Your task to perform on an android device: See recent photos Image 0: 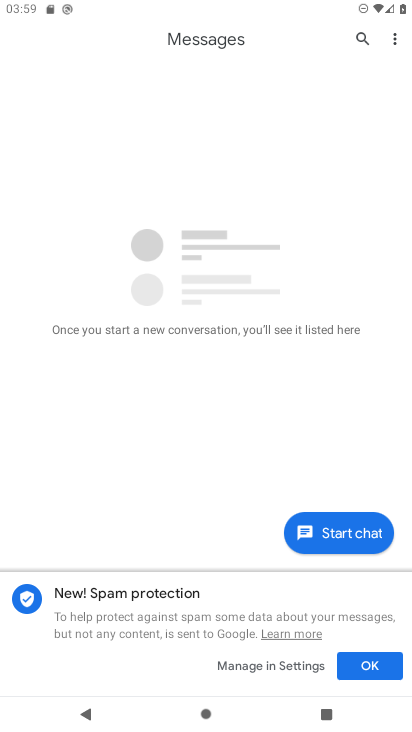
Step 0: press home button
Your task to perform on an android device: See recent photos Image 1: 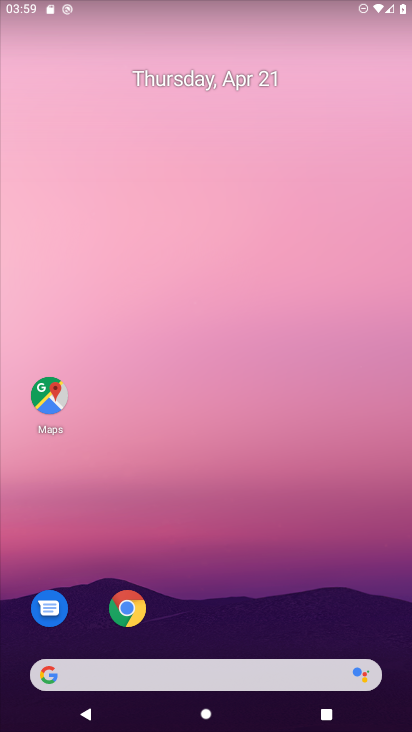
Step 1: drag from (266, 516) to (258, 176)
Your task to perform on an android device: See recent photos Image 2: 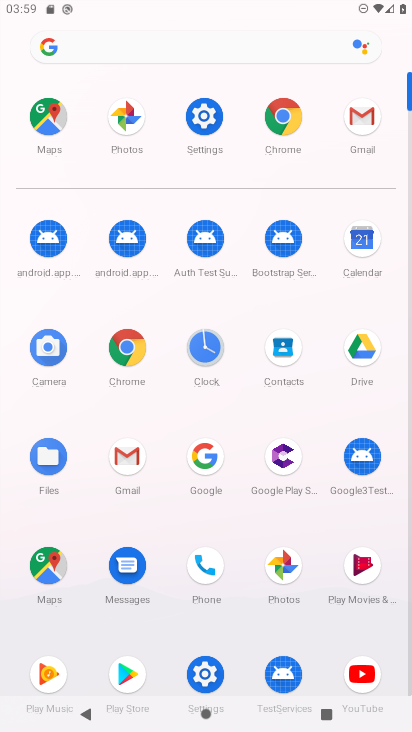
Step 2: click (278, 563)
Your task to perform on an android device: See recent photos Image 3: 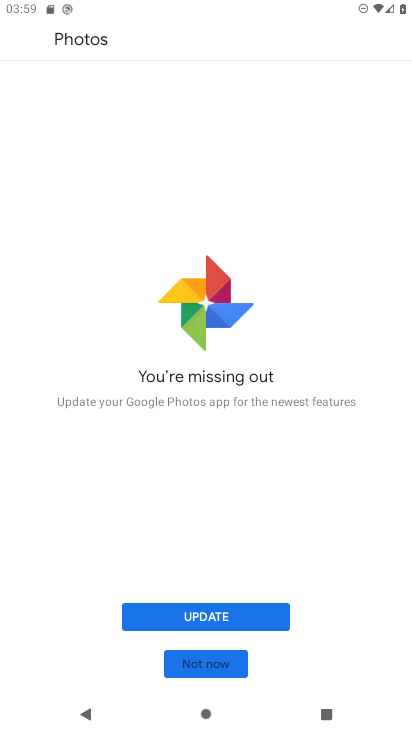
Step 3: click (211, 665)
Your task to perform on an android device: See recent photos Image 4: 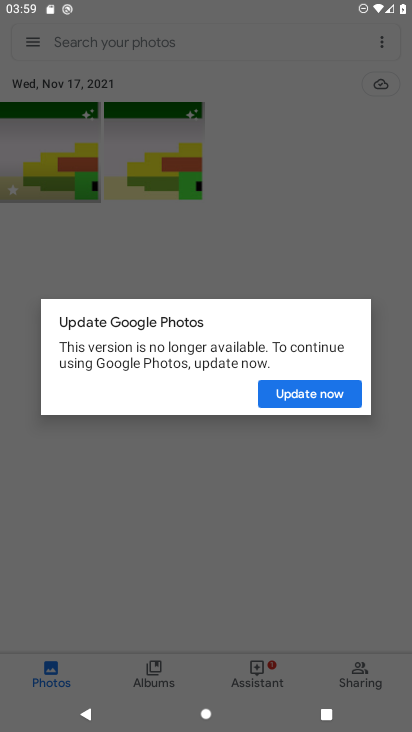
Step 4: click (303, 386)
Your task to perform on an android device: See recent photos Image 5: 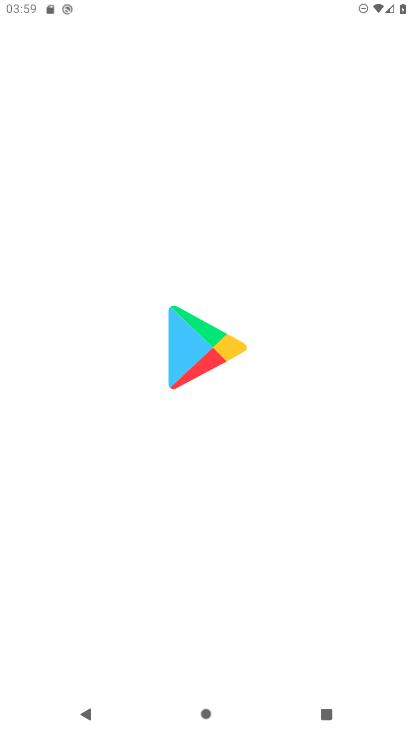
Step 5: task complete